Your task to perform on an android device: change notifications settings Image 0: 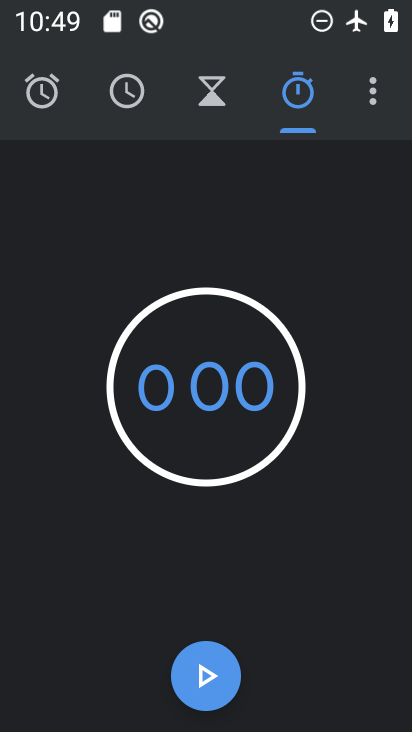
Step 0: press home button
Your task to perform on an android device: change notifications settings Image 1: 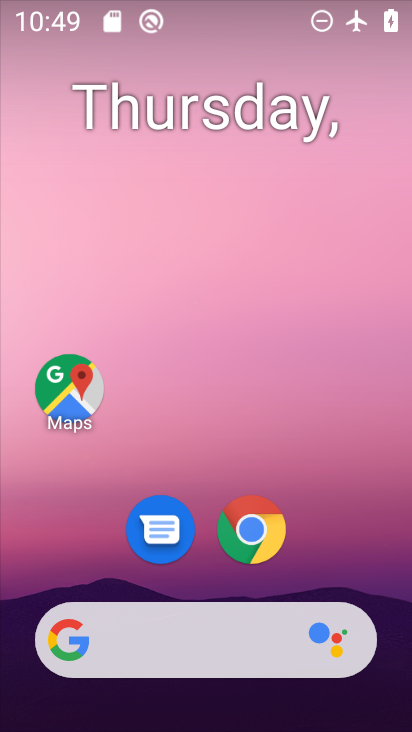
Step 1: drag from (233, 696) to (192, 0)
Your task to perform on an android device: change notifications settings Image 2: 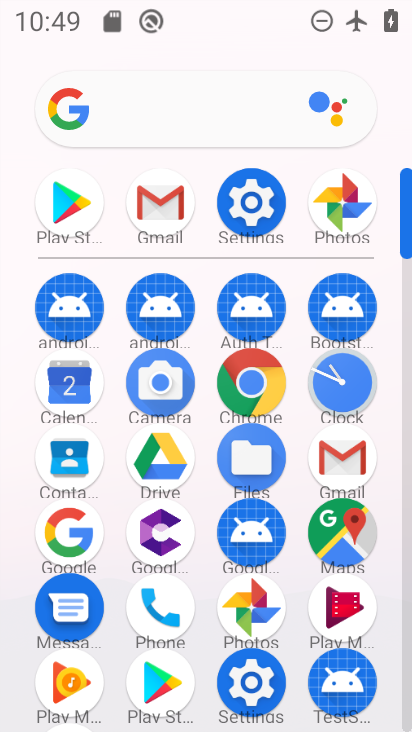
Step 2: click (242, 213)
Your task to perform on an android device: change notifications settings Image 3: 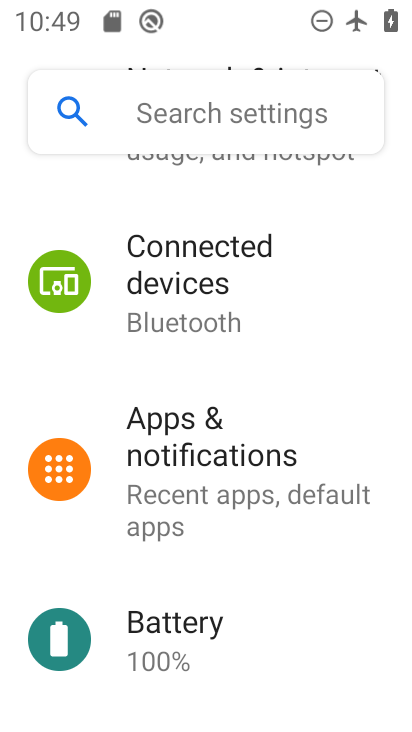
Step 3: click (212, 481)
Your task to perform on an android device: change notifications settings Image 4: 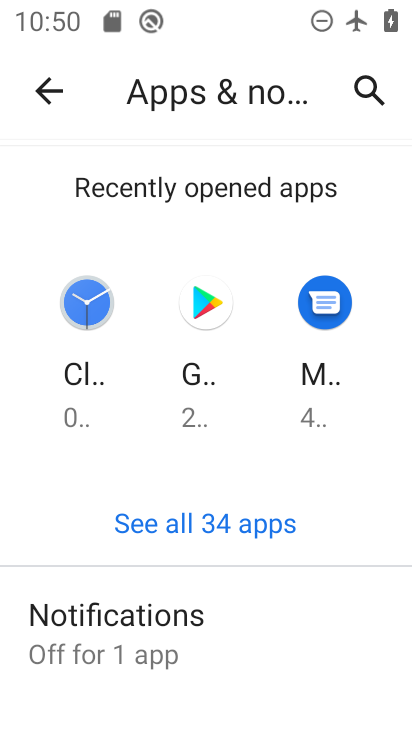
Step 4: drag from (251, 651) to (193, 31)
Your task to perform on an android device: change notifications settings Image 5: 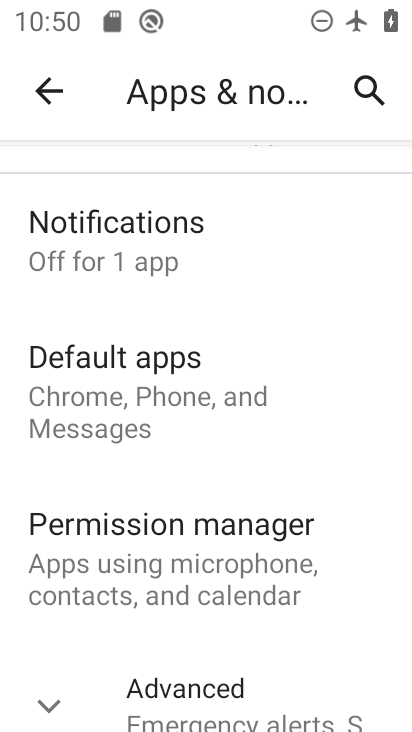
Step 5: click (161, 238)
Your task to perform on an android device: change notifications settings Image 6: 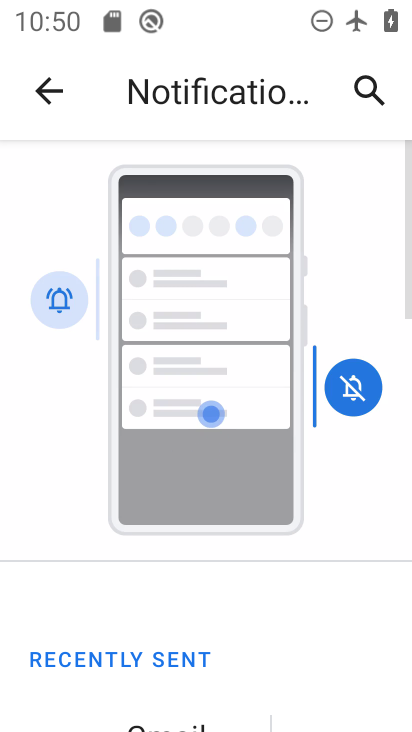
Step 6: drag from (305, 643) to (261, 122)
Your task to perform on an android device: change notifications settings Image 7: 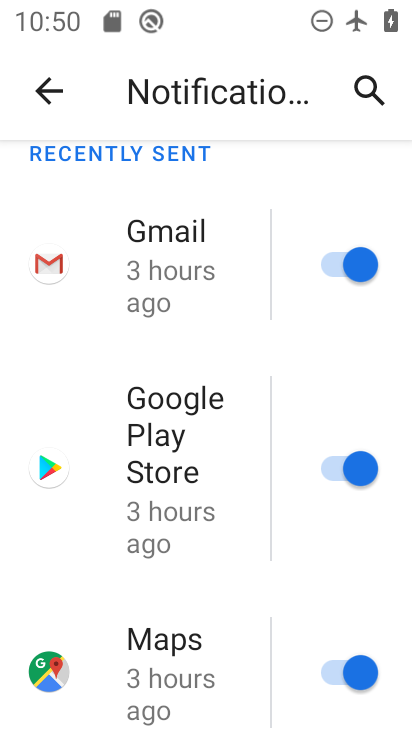
Step 7: click (353, 463)
Your task to perform on an android device: change notifications settings Image 8: 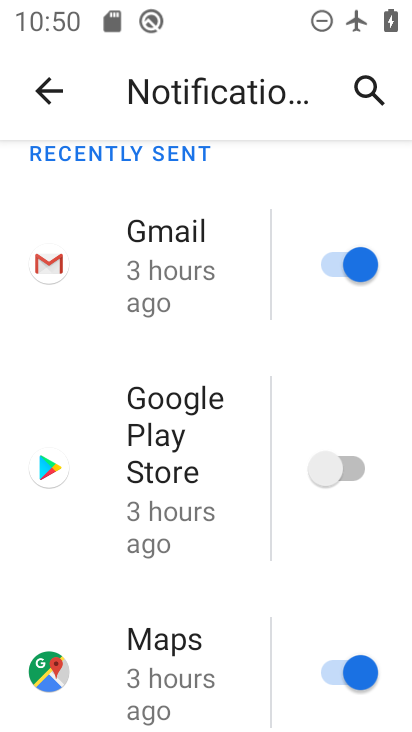
Step 8: task complete